Your task to perform on an android device: Do I have any events this weekend? Image 0: 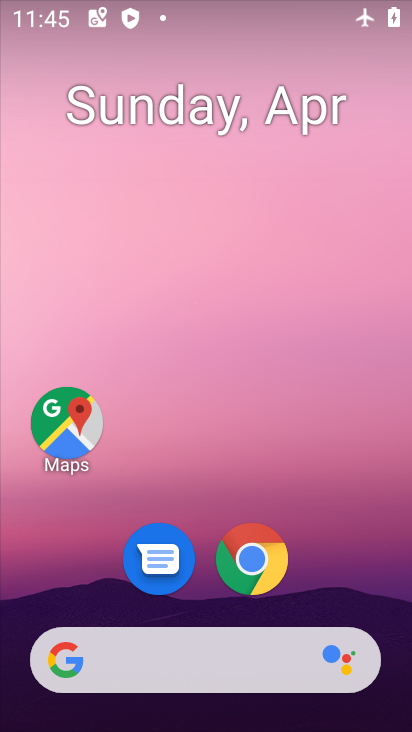
Step 0: drag from (308, 577) to (295, 152)
Your task to perform on an android device: Do I have any events this weekend? Image 1: 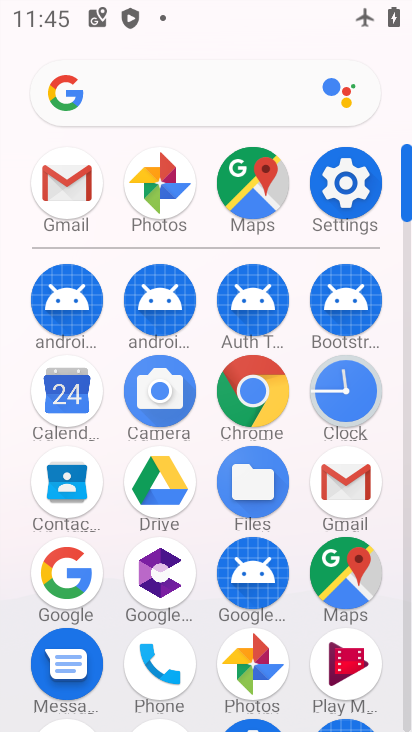
Step 1: click (75, 394)
Your task to perform on an android device: Do I have any events this weekend? Image 2: 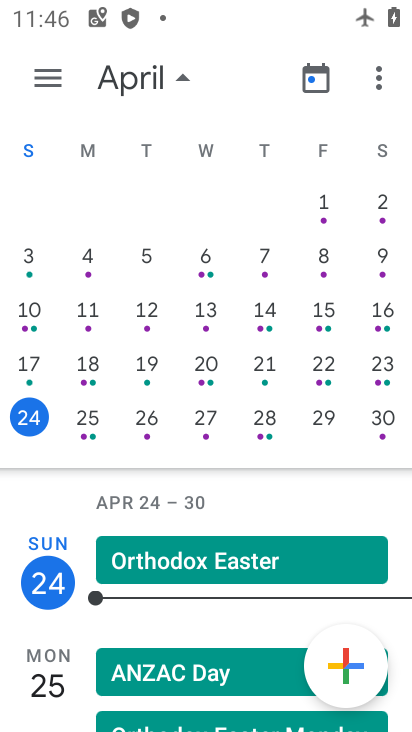
Step 2: click (374, 426)
Your task to perform on an android device: Do I have any events this weekend? Image 3: 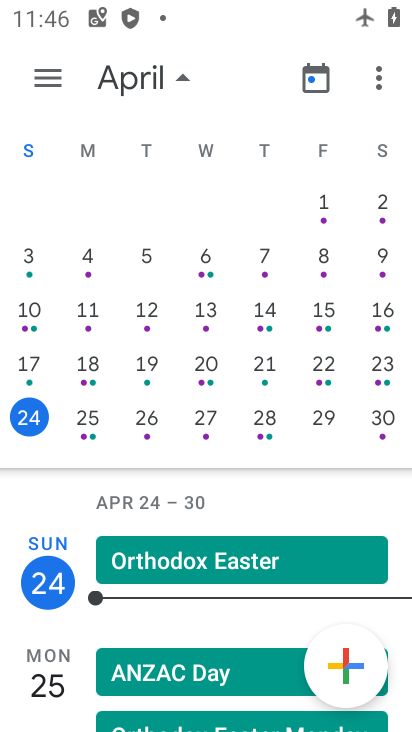
Step 3: click (380, 421)
Your task to perform on an android device: Do I have any events this weekend? Image 4: 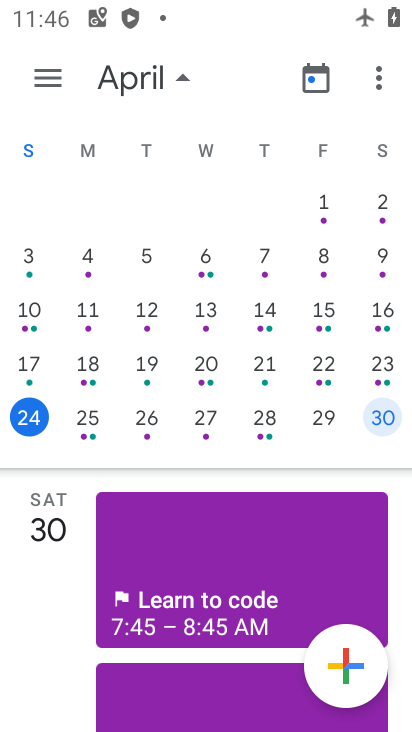
Step 4: task complete